Your task to perform on an android device: turn on location history Image 0: 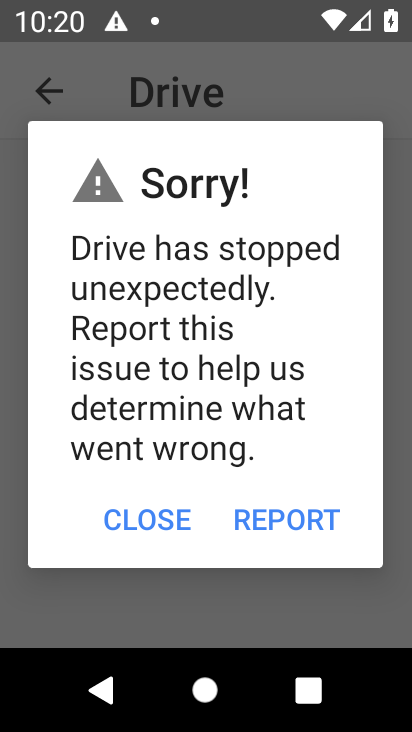
Step 0: press back button
Your task to perform on an android device: turn on location history Image 1: 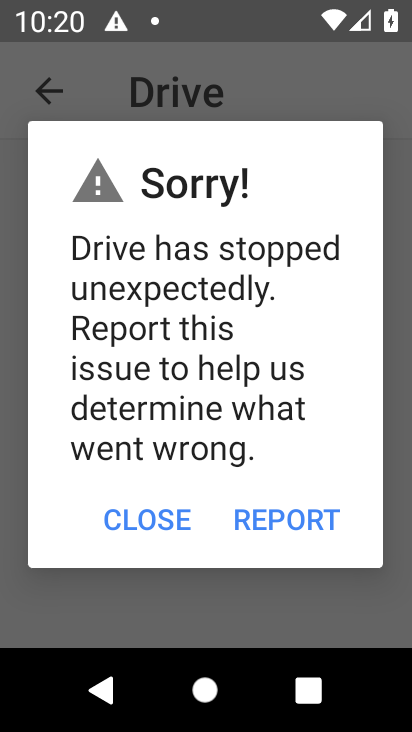
Step 1: press home button
Your task to perform on an android device: turn on location history Image 2: 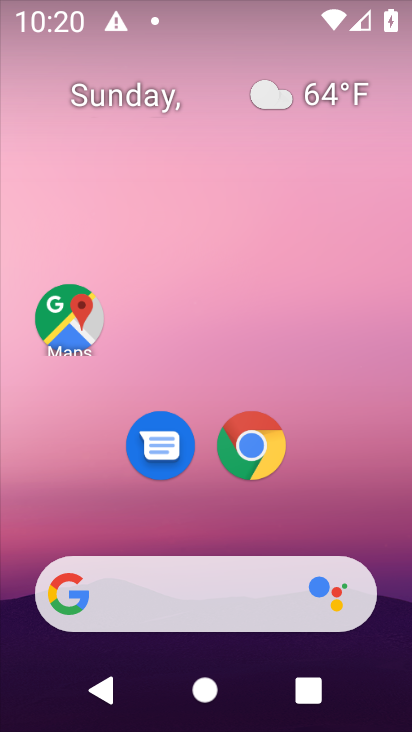
Step 2: drag from (200, 624) to (260, 209)
Your task to perform on an android device: turn on location history Image 3: 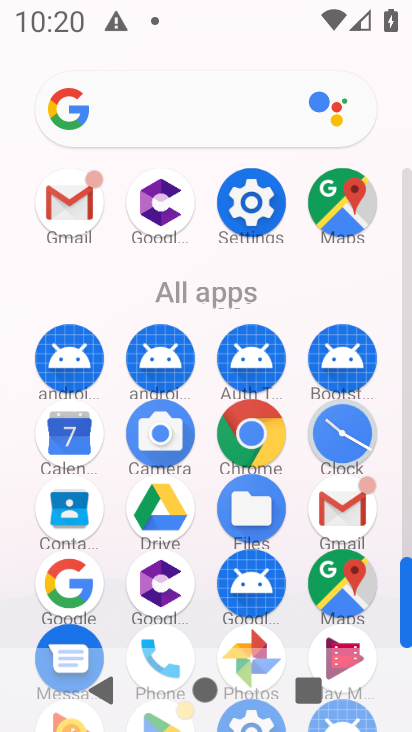
Step 3: click (252, 216)
Your task to perform on an android device: turn on location history Image 4: 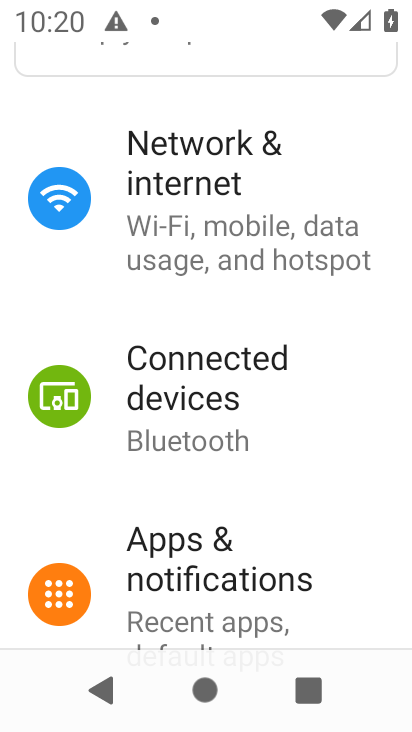
Step 4: drag from (194, 551) to (240, 89)
Your task to perform on an android device: turn on location history Image 5: 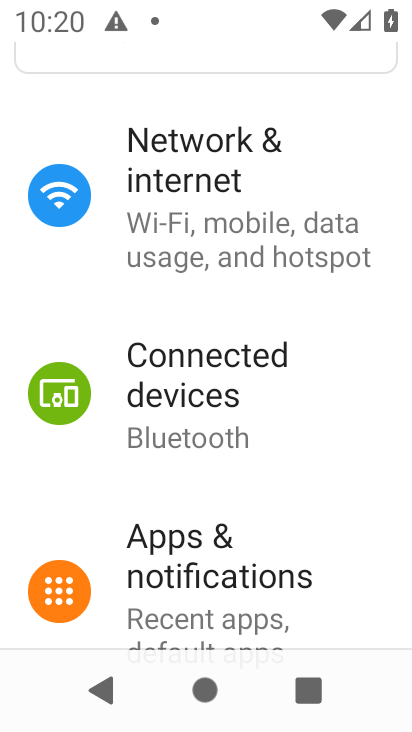
Step 5: drag from (227, 579) to (226, 352)
Your task to perform on an android device: turn on location history Image 6: 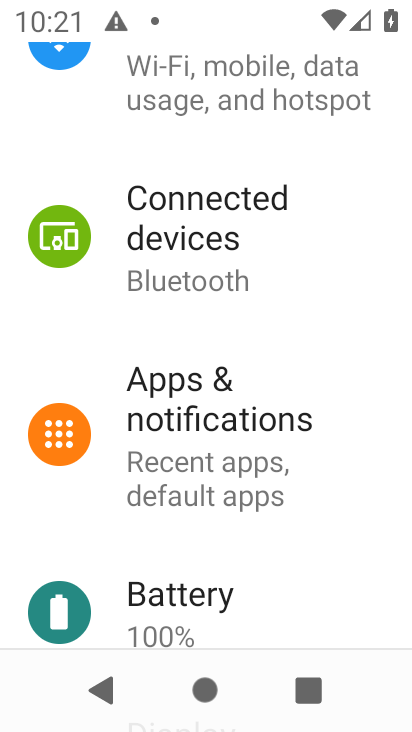
Step 6: drag from (242, 569) to (269, 135)
Your task to perform on an android device: turn on location history Image 7: 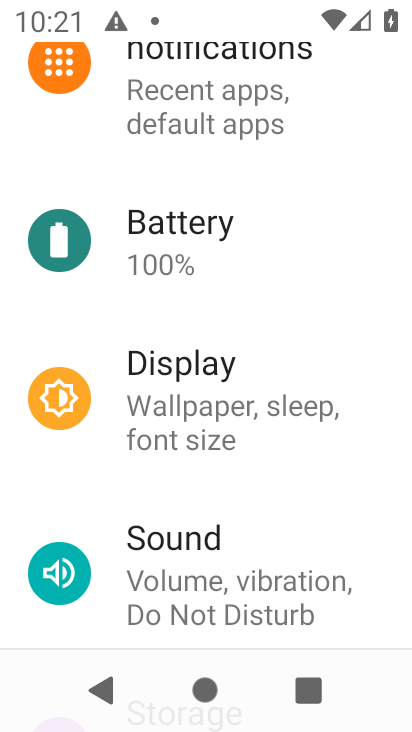
Step 7: drag from (240, 429) to (278, 135)
Your task to perform on an android device: turn on location history Image 8: 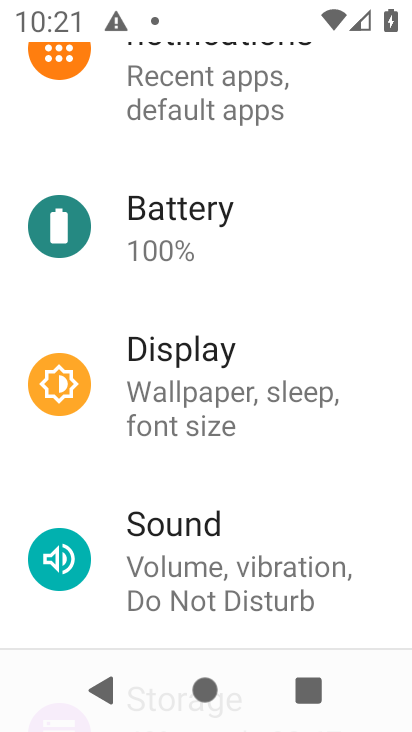
Step 8: drag from (261, 620) to (272, 116)
Your task to perform on an android device: turn on location history Image 9: 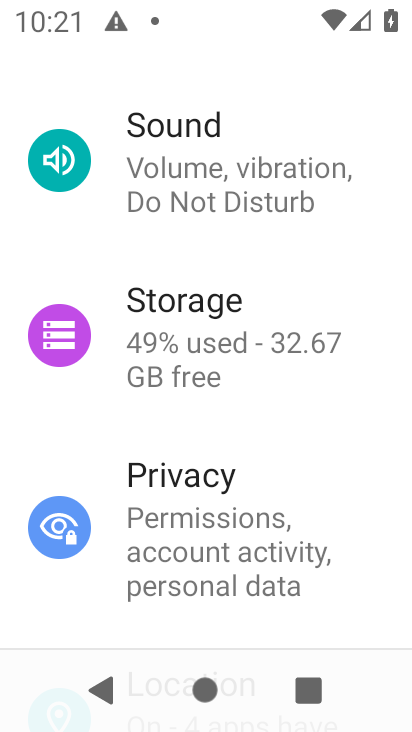
Step 9: drag from (233, 586) to (225, 73)
Your task to perform on an android device: turn on location history Image 10: 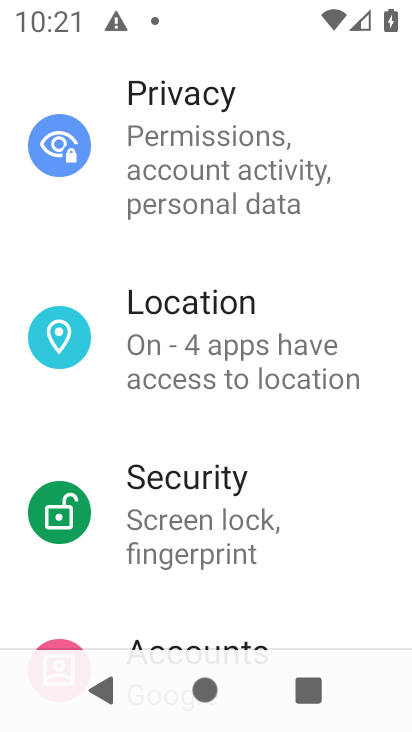
Step 10: drag from (200, 530) to (244, 111)
Your task to perform on an android device: turn on location history Image 11: 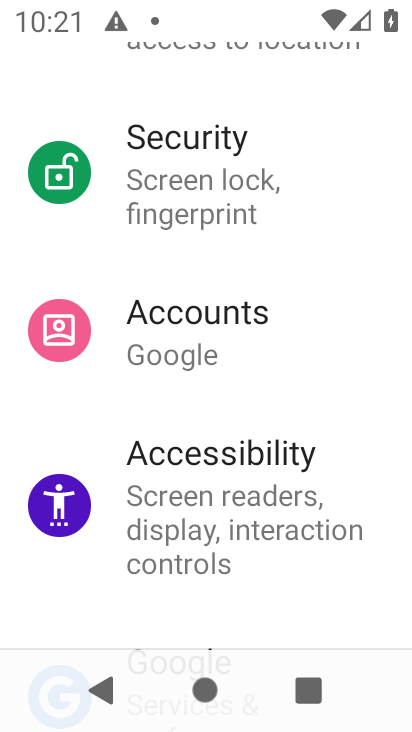
Step 11: drag from (226, 610) to (245, 123)
Your task to perform on an android device: turn on location history Image 12: 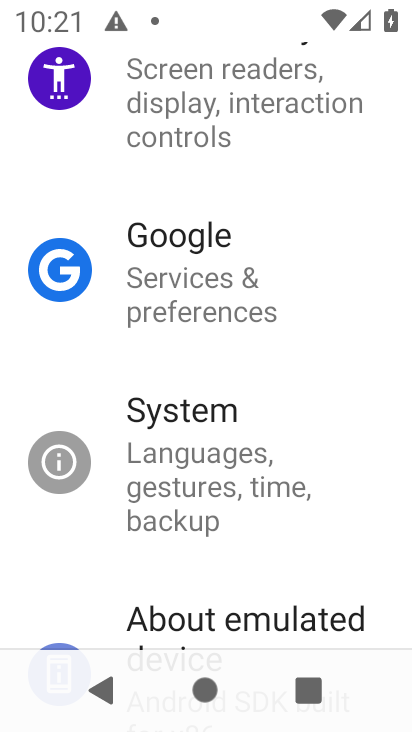
Step 12: drag from (245, 123) to (217, 667)
Your task to perform on an android device: turn on location history Image 13: 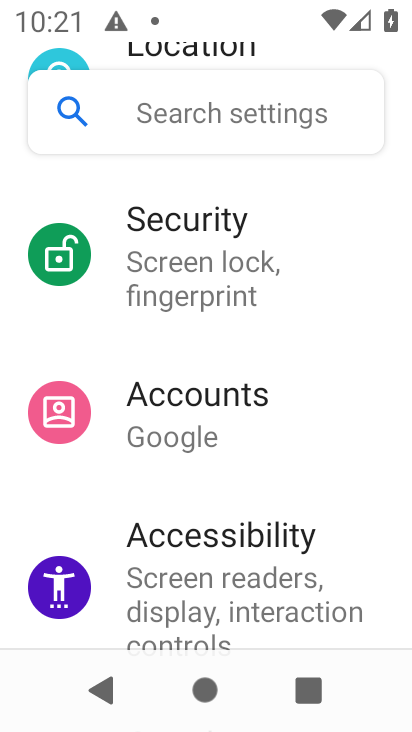
Step 13: drag from (204, 239) to (191, 530)
Your task to perform on an android device: turn on location history Image 14: 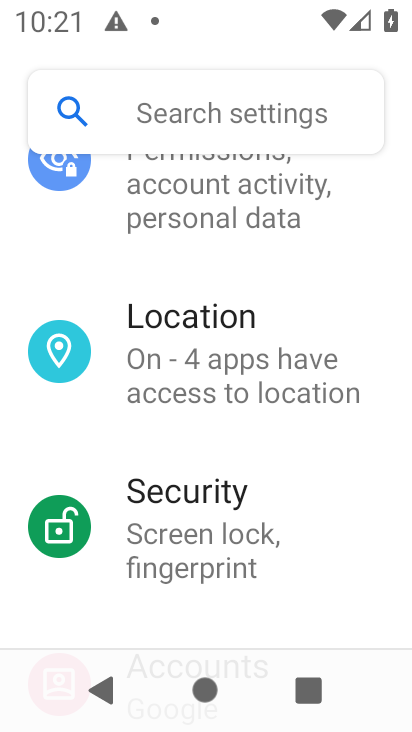
Step 14: click (208, 318)
Your task to perform on an android device: turn on location history Image 15: 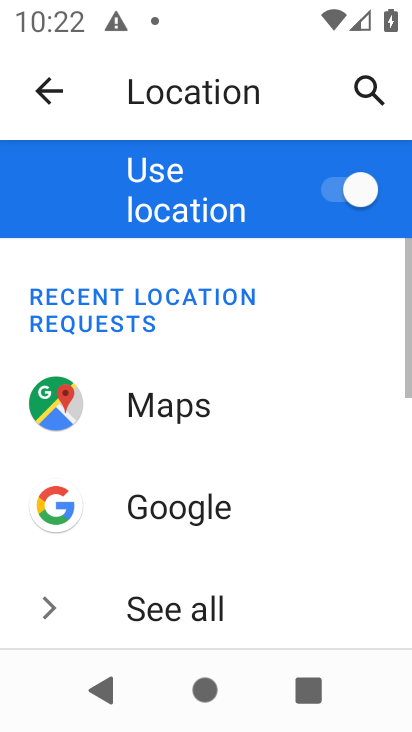
Step 15: drag from (216, 591) to (229, 84)
Your task to perform on an android device: turn on location history Image 16: 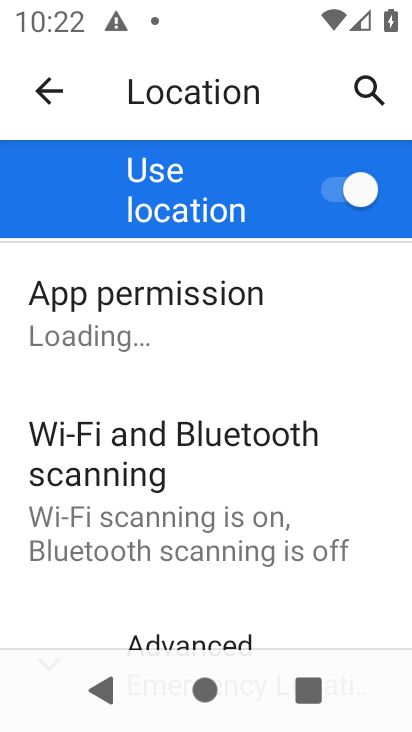
Step 16: drag from (210, 613) to (197, 250)
Your task to perform on an android device: turn on location history Image 17: 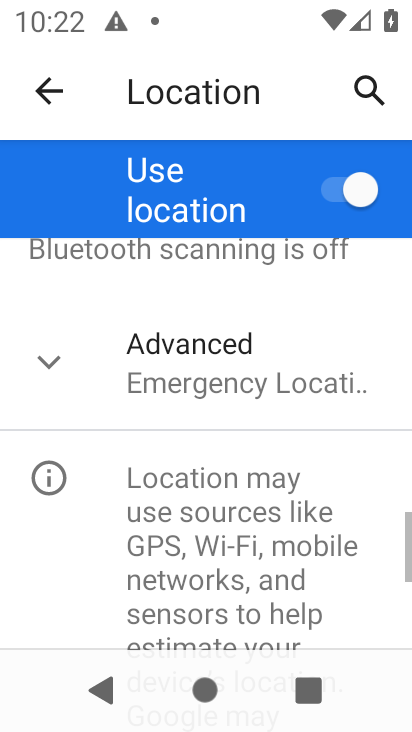
Step 17: click (154, 411)
Your task to perform on an android device: turn on location history Image 18: 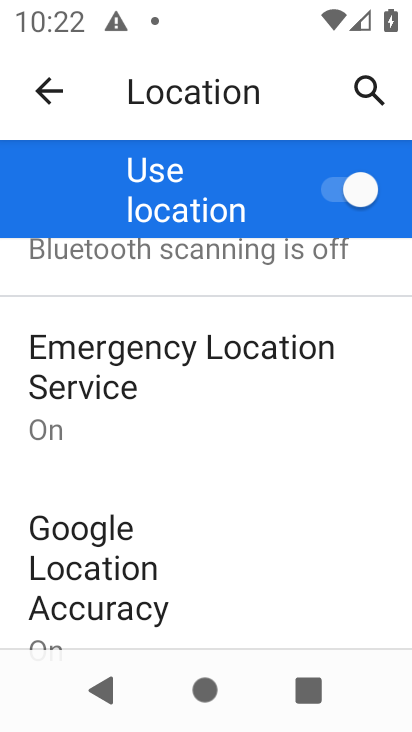
Step 18: drag from (194, 582) to (236, 246)
Your task to perform on an android device: turn on location history Image 19: 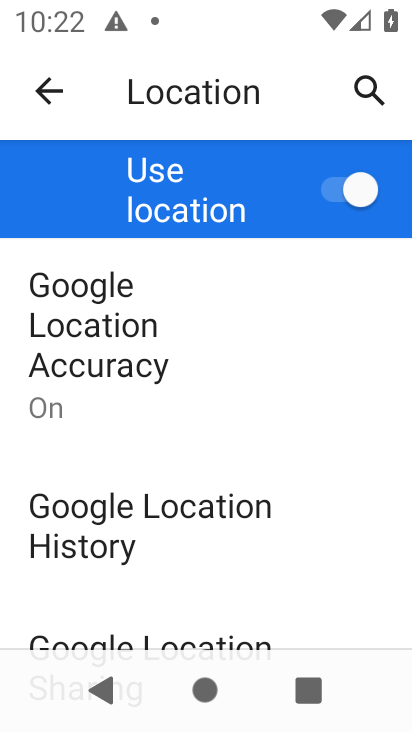
Step 19: click (139, 500)
Your task to perform on an android device: turn on location history Image 20: 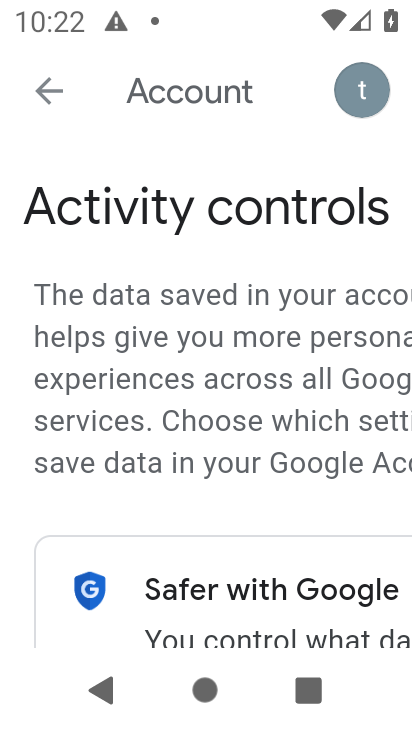
Step 20: task complete